Your task to perform on an android device: empty trash in the gmail app Image 0: 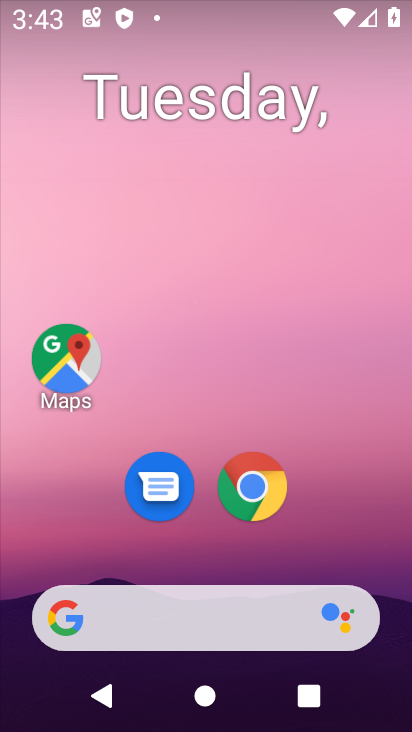
Step 0: drag from (184, 548) to (302, 3)
Your task to perform on an android device: empty trash in the gmail app Image 1: 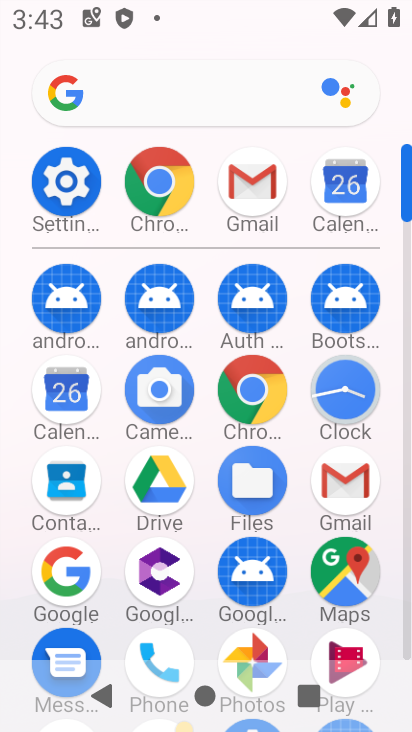
Step 1: click (255, 171)
Your task to perform on an android device: empty trash in the gmail app Image 2: 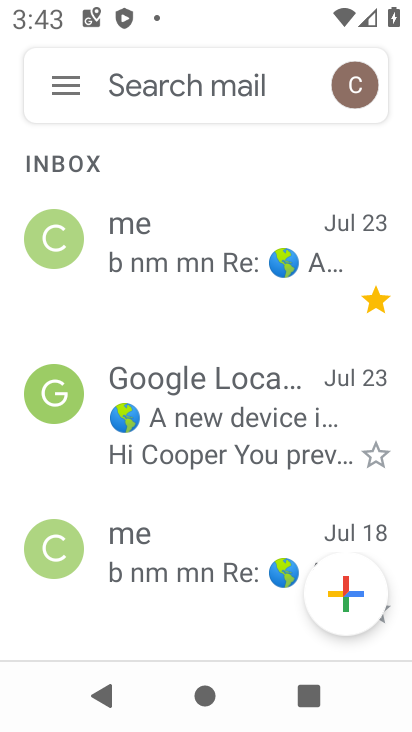
Step 2: click (45, 83)
Your task to perform on an android device: empty trash in the gmail app Image 3: 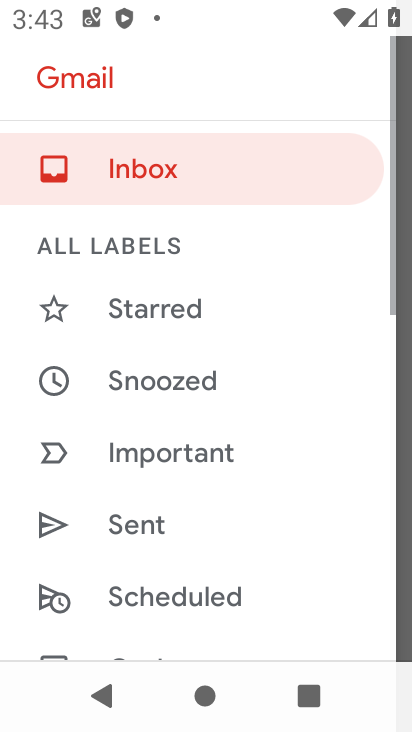
Step 3: drag from (137, 584) to (275, 73)
Your task to perform on an android device: empty trash in the gmail app Image 4: 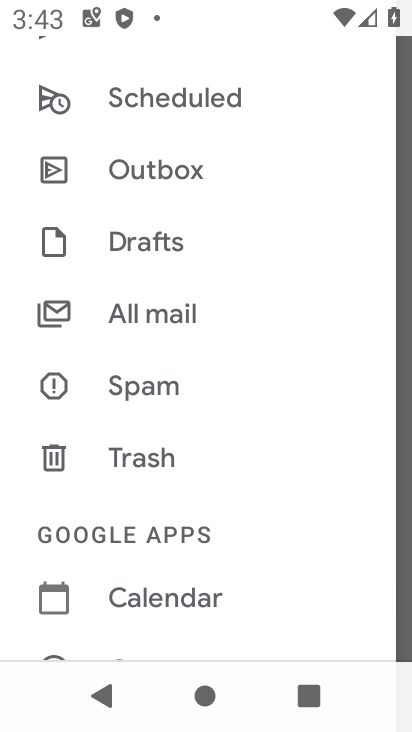
Step 4: click (142, 450)
Your task to perform on an android device: empty trash in the gmail app Image 5: 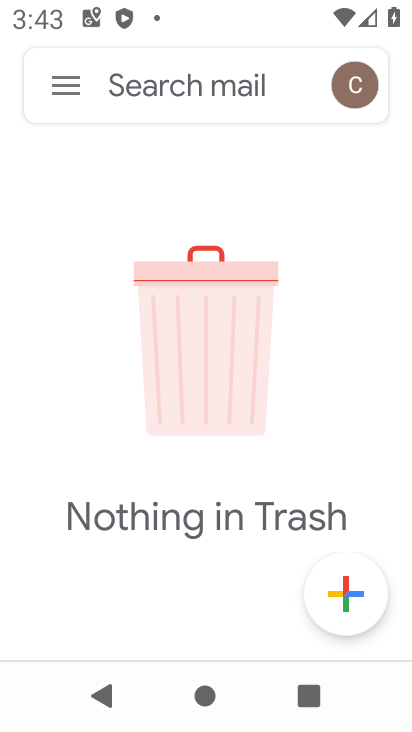
Step 5: task complete